Your task to perform on an android device: What's the weather going to be tomorrow? Image 0: 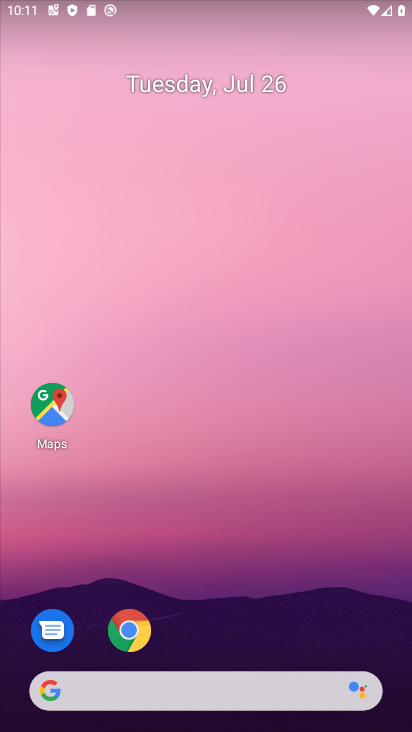
Step 0: click (139, 679)
Your task to perform on an android device: What's the weather going to be tomorrow? Image 1: 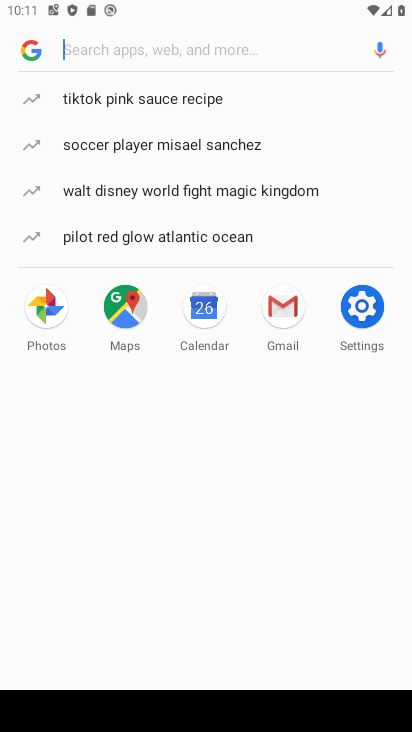
Step 1: type "weather"
Your task to perform on an android device: What's the weather going to be tomorrow? Image 2: 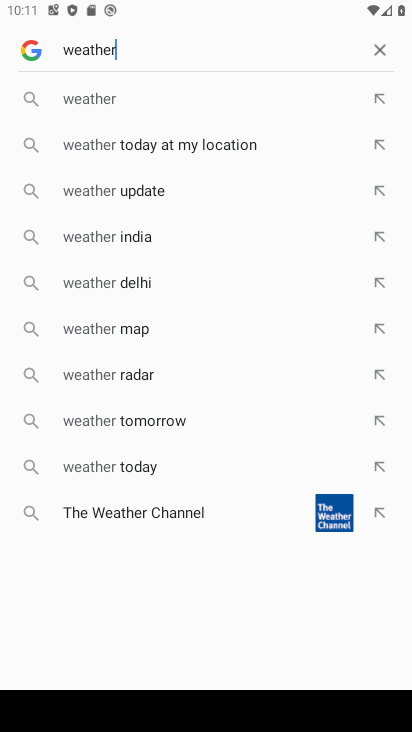
Step 2: click (83, 103)
Your task to perform on an android device: What's the weather going to be tomorrow? Image 3: 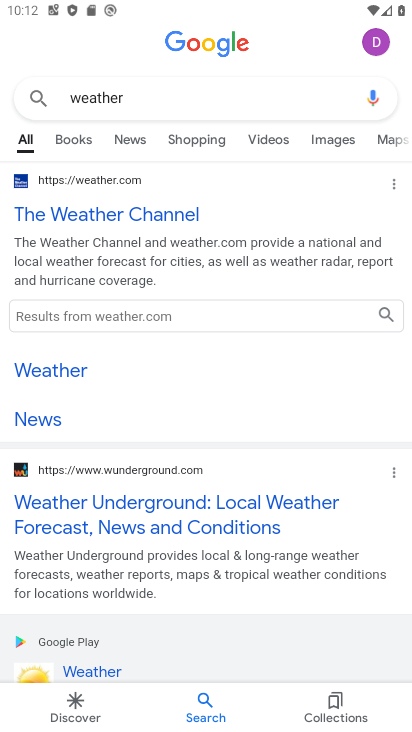
Step 3: task complete